Your task to perform on an android device: open app "Skype" (install if not already installed) and enter user name: "rumor@gmail.com" and password: "kinsman" Image 0: 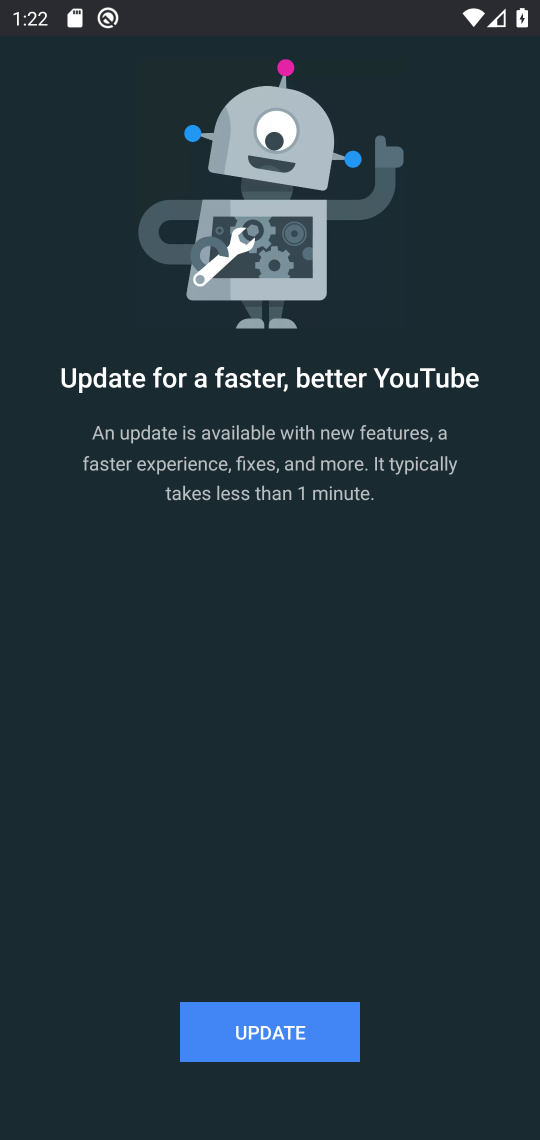
Step 0: press home button
Your task to perform on an android device: open app "Skype" (install if not already installed) and enter user name: "rumor@gmail.com" and password: "kinsman" Image 1: 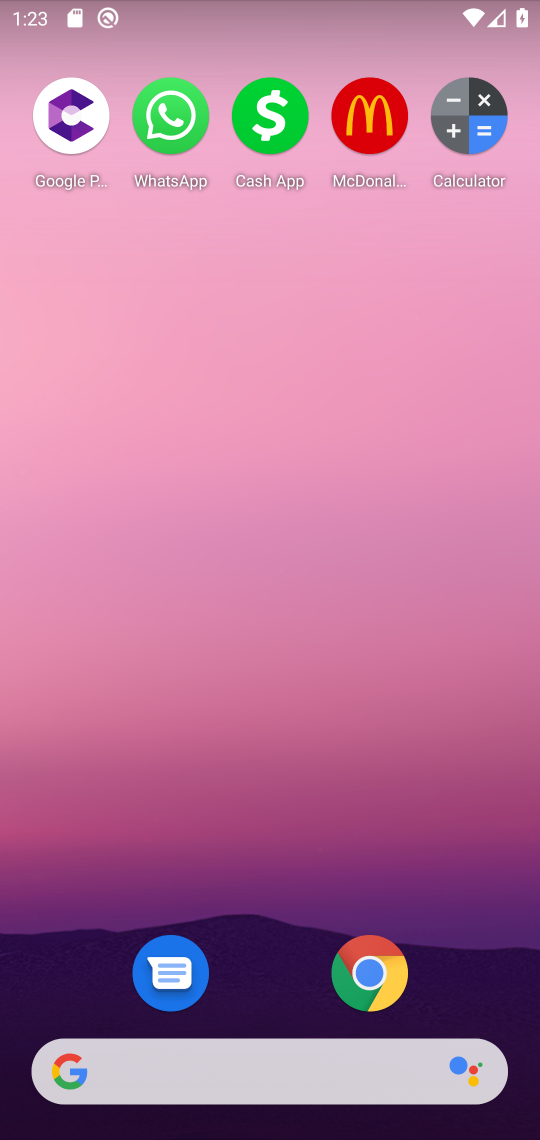
Step 1: press home button
Your task to perform on an android device: open app "Skype" (install if not already installed) and enter user name: "rumor@gmail.com" and password: "kinsman" Image 2: 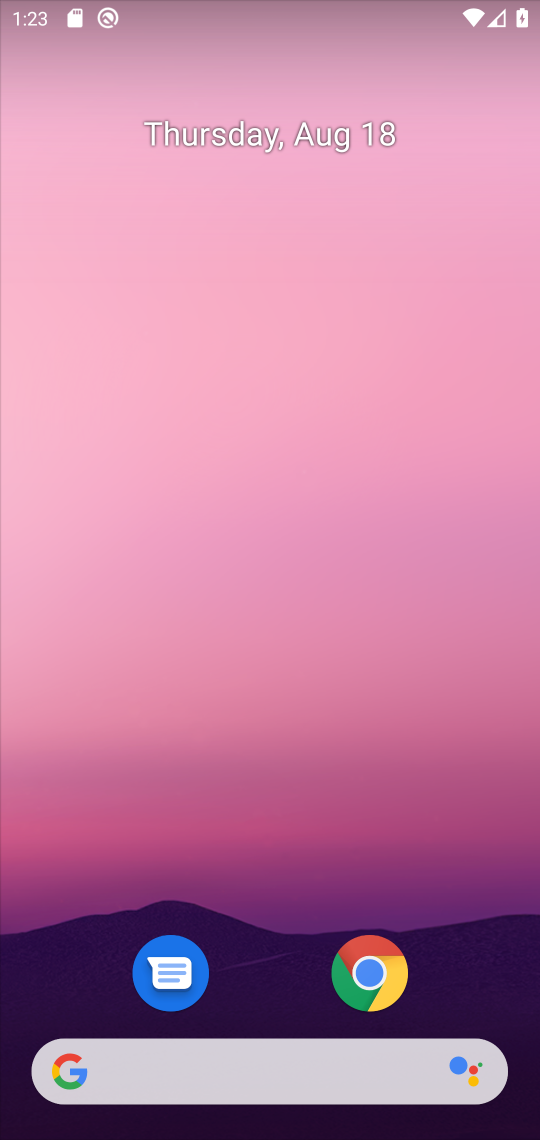
Step 2: click (287, 130)
Your task to perform on an android device: open app "Skype" (install if not already installed) and enter user name: "rumor@gmail.com" and password: "kinsman" Image 3: 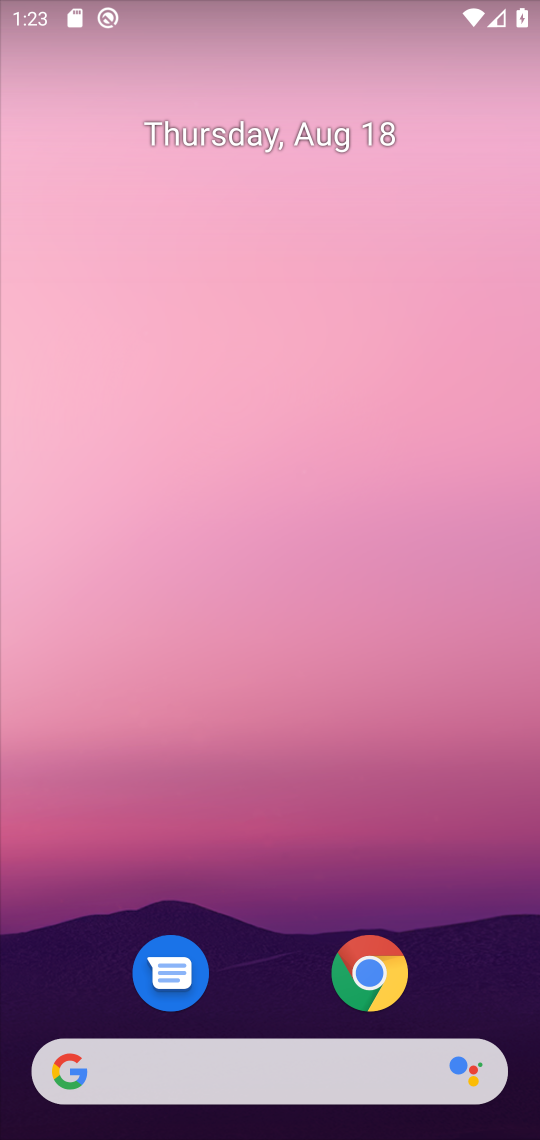
Step 3: drag from (297, 569) to (312, 116)
Your task to perform on an android device: open app "Skype" (install if not already installed) and enter user name: "rumor@gmail.com" and password: "kinsman" Image 4: 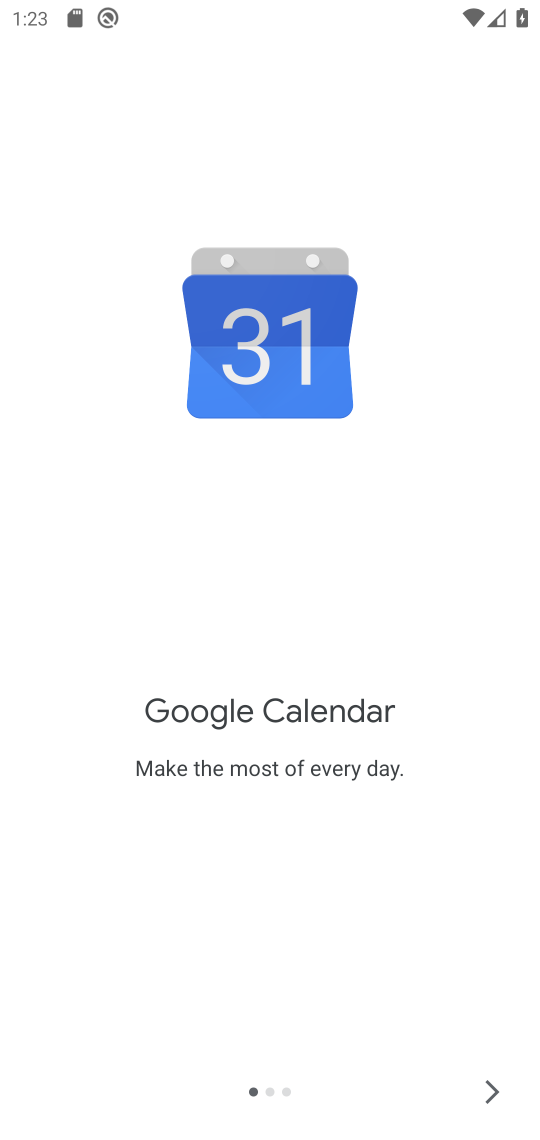
Step 4: drag from (251, 785) to (269, 226)
Your task to perform on an android device: open app "Skype" (install if not already installed) and enter user name: "rumor@gmail.com" and password: "kinsman" Image 5: 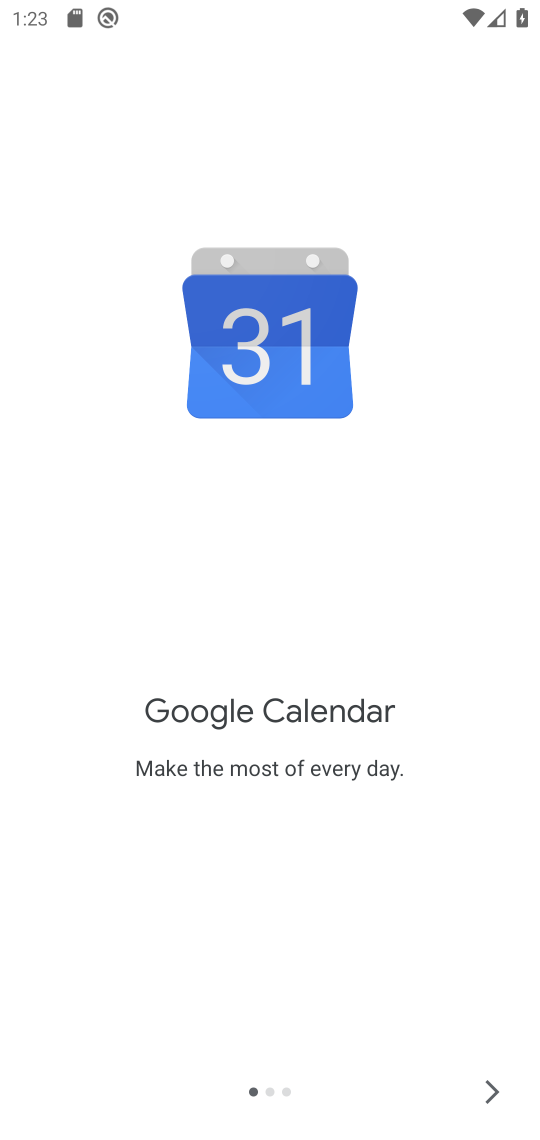
Step 5: press home button
Your task to perform on an android device: open app "Skype" (install if not already installed) and enter user name: "rumor@gmail.com" and password: "kinsman" Image 6: 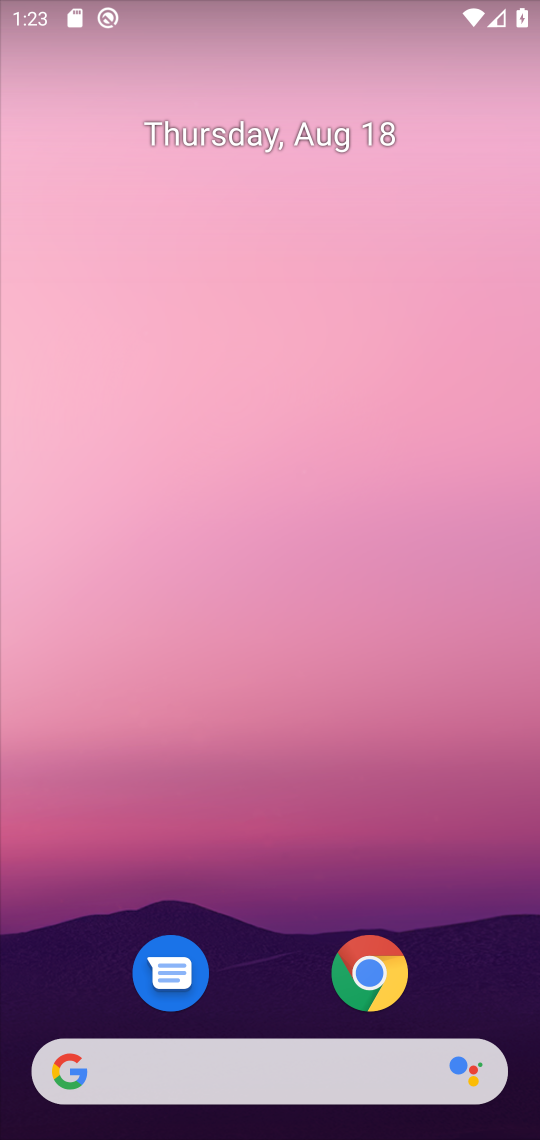
Step 6: drag from (271, 1005) to (267, 300)
Your task to perform on an android device: open app "Skype" (install if not already installed) and enter user name: "rumor@gmail.com" and password: "kinsman" Image 7: 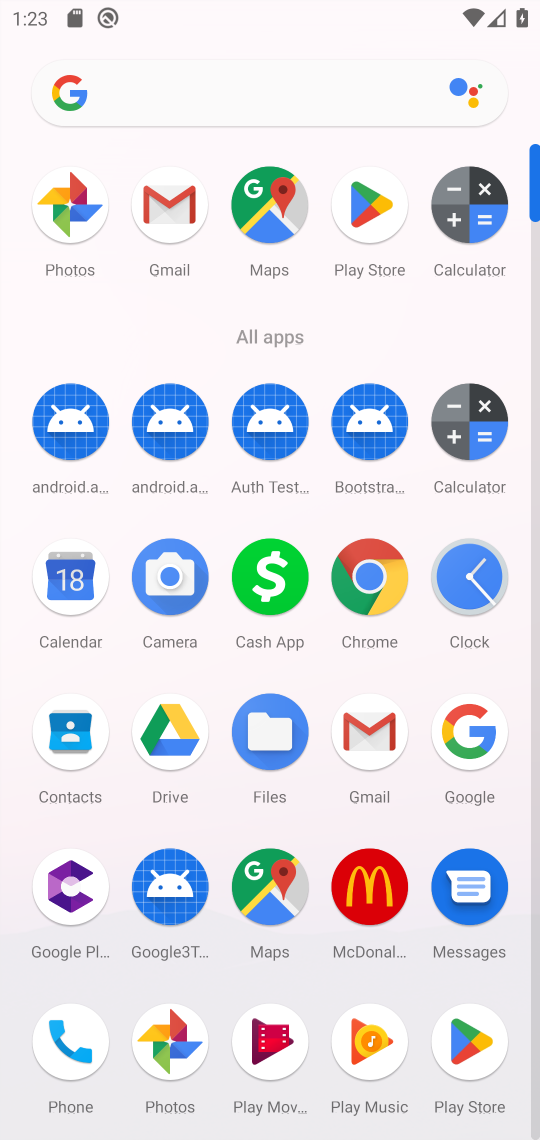
Step 7: click (471, 1034)
Your task to perform on an android device: open app "Skype" (install if not already installed) and enter user name: "rumor@gmail.com" and password: "kinsman" Image 8: 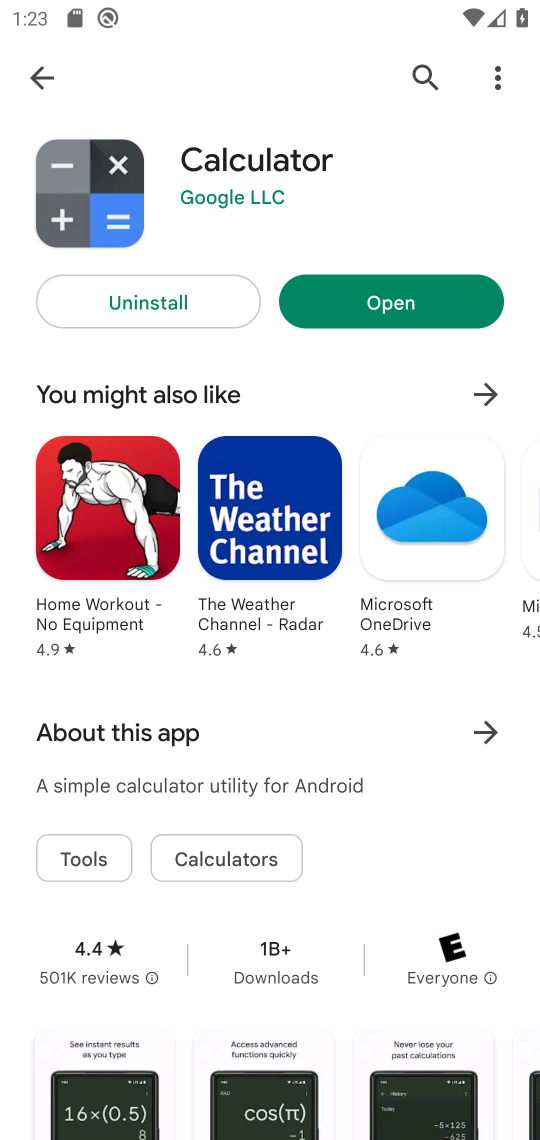
Step 8: click (400, 72)
Your task to perform on an android device: open app "Skype" (install if not already installed) and enter user name: "rumor@gmail.com" and password: "kinsman" Image 9: 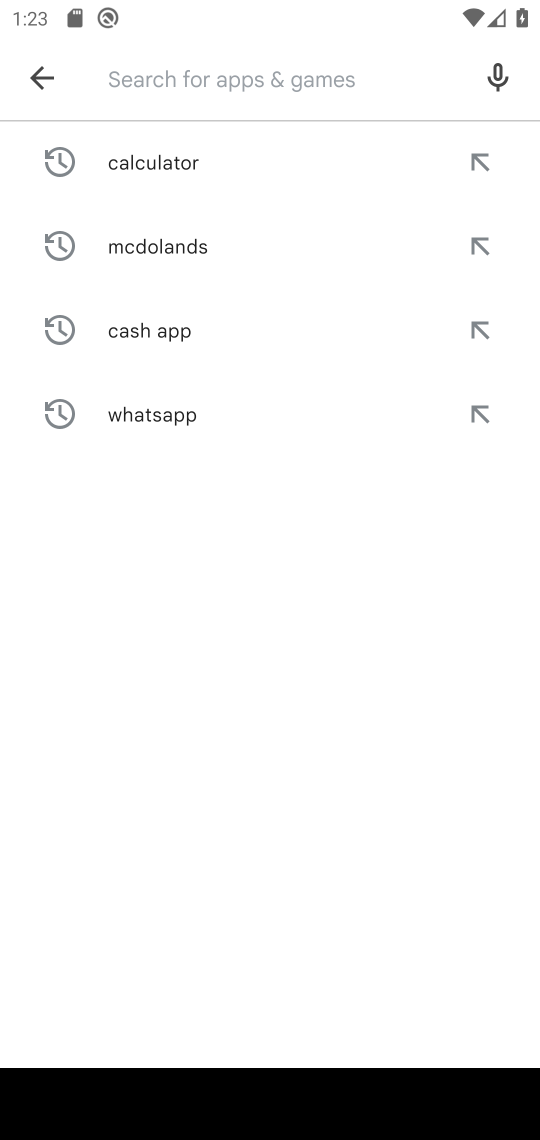
Step 9: type "skype"
Your task to perform on an android device: open app "Skype" (install if not already installed) and enter user name: "rumor@gmail.com" and password: "kinsman" Image 10: 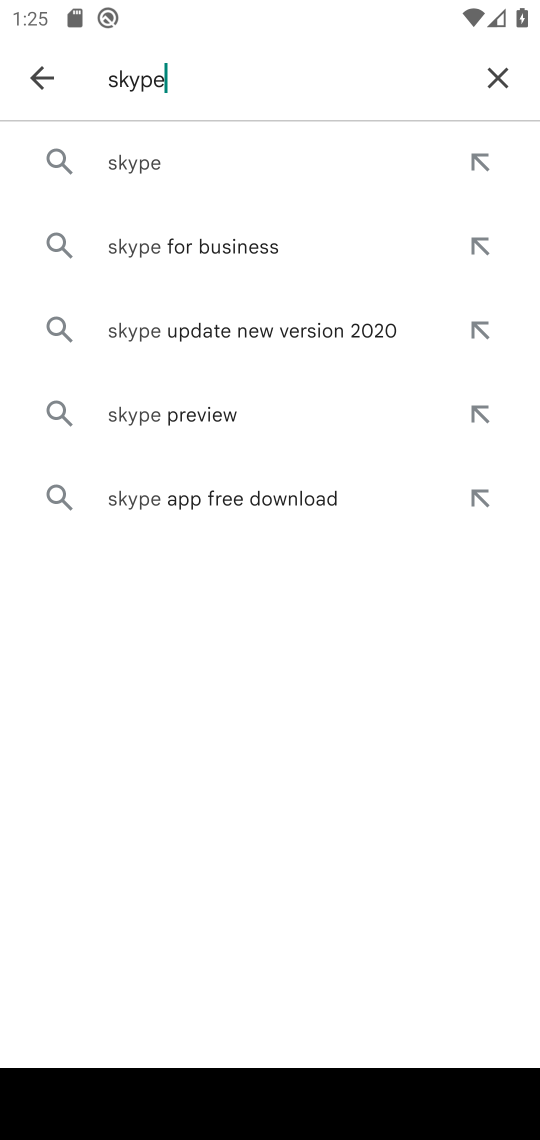
Step 10: click (174, 190)
Your task to perform on an android device: open app "Skype" (install if not already installed) and enter user name: "rumor@gmail.com" and password: "kinsman" Image 11: 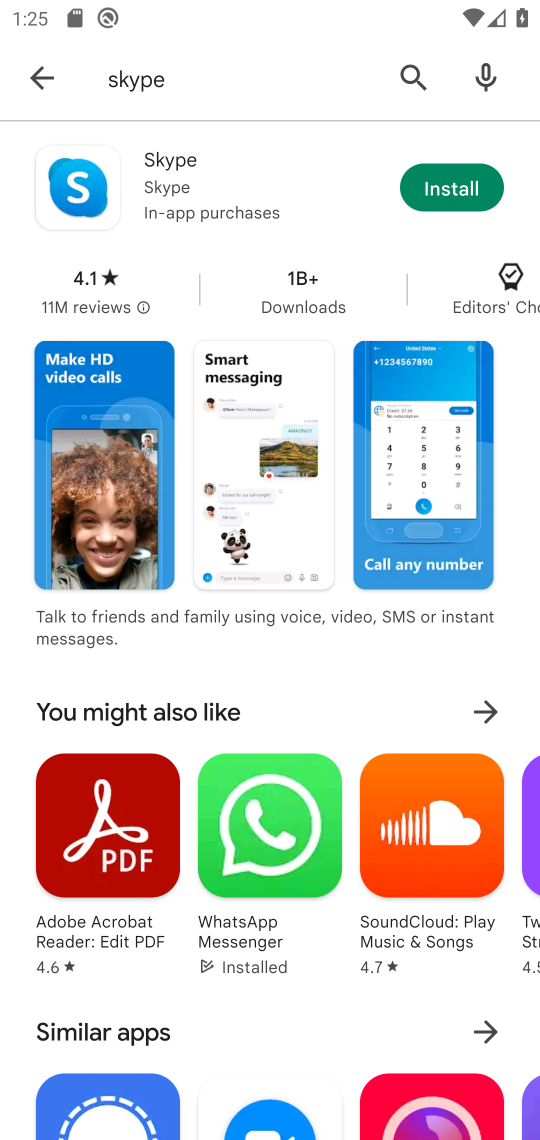
Step 11: click (451, 200)
Your task to perform on an android device: open app "Skype" (install if not already installed) and enter user name: "rumor@gmail.com" and password: "kinsman" Image 12: 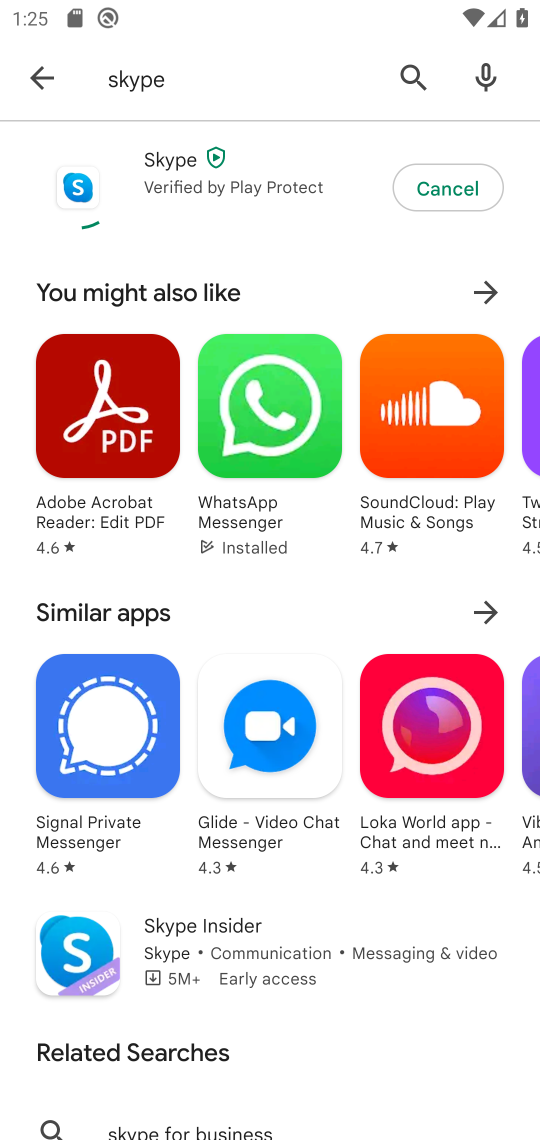
Step 12: task complete